Your task to perform on an android device: uninstall "Viber Messenger" Image 0: 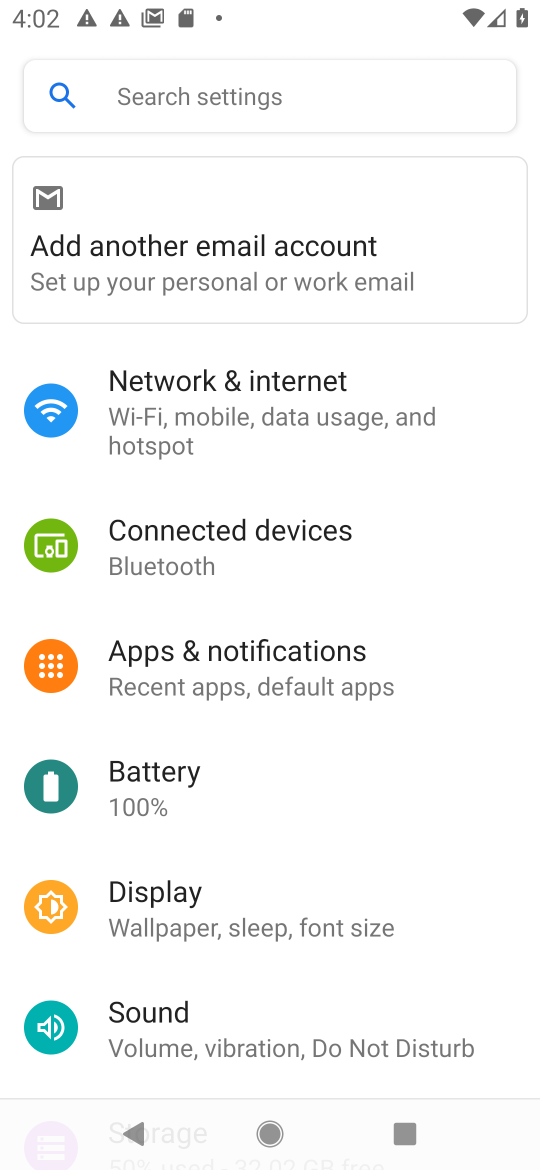
Step 0: press home button
Your task to perform on an android device: uninstall "Viber Messenger" Image 1: 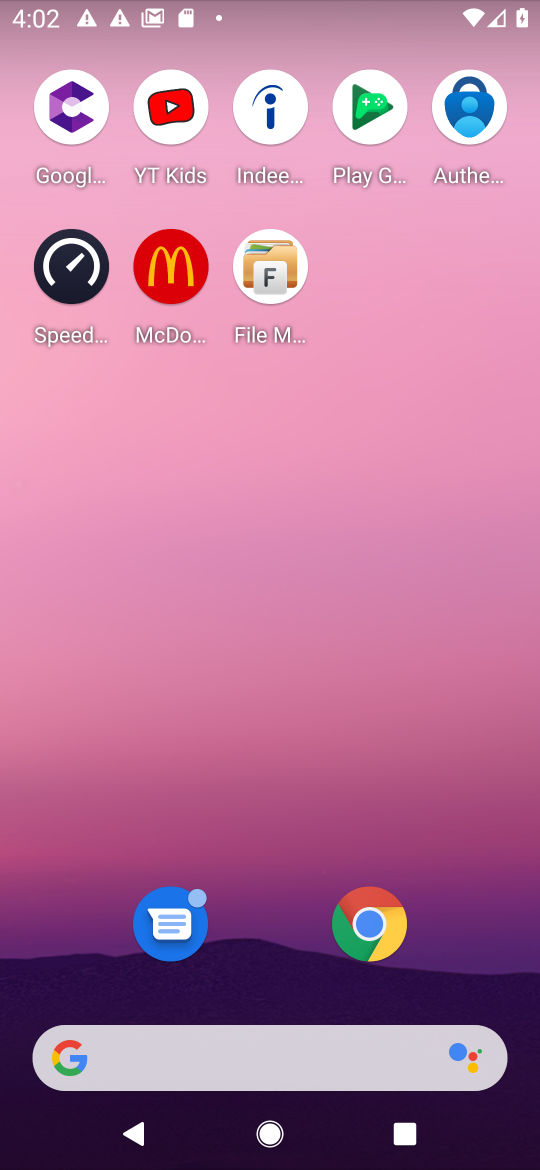
Step 1: drag from (307, 1150) to (251, 117)
Your task to perform on an android device: uninstall "Viber Messenger" Image 2: 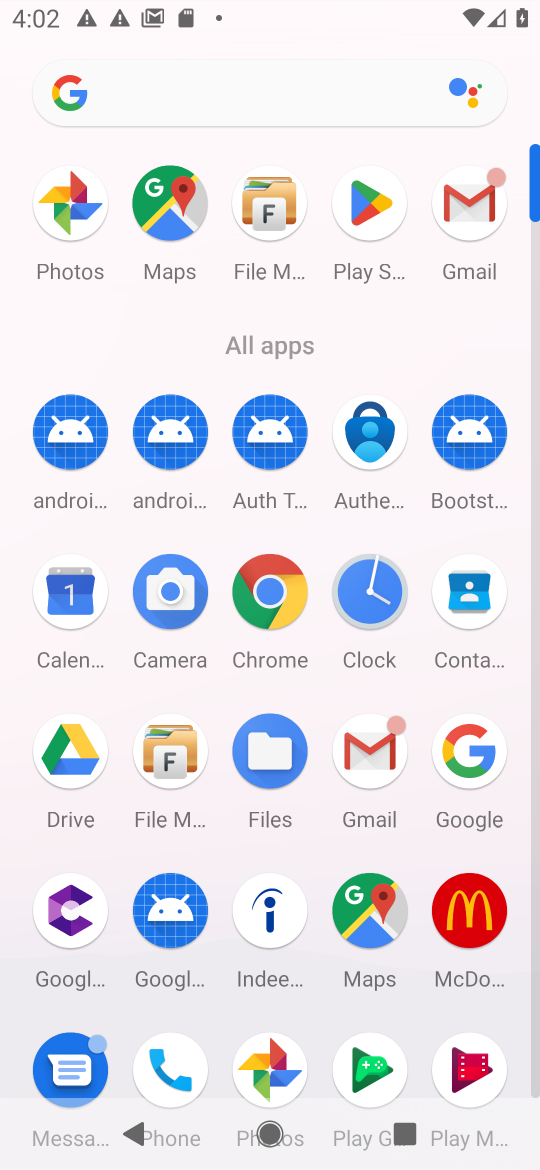
Step 2: click (371, 197)
Your task to perform on an android device: uninstall "Viber Messenger" Image 3: 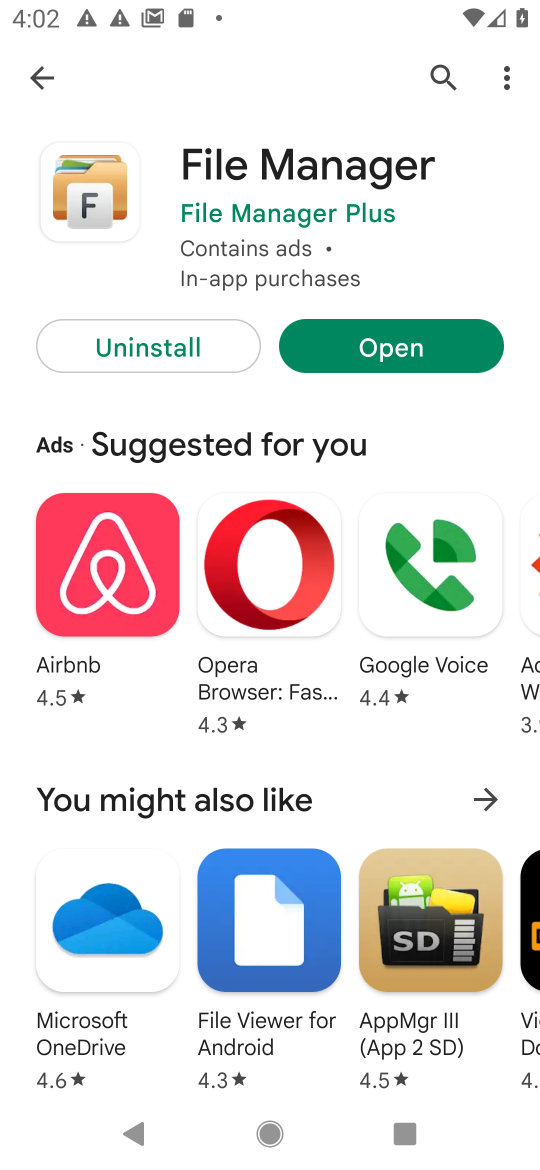
Step 3: click (441, 67)
Your task to perform on an android device: uninstall "Viber Messenger" Image 4: 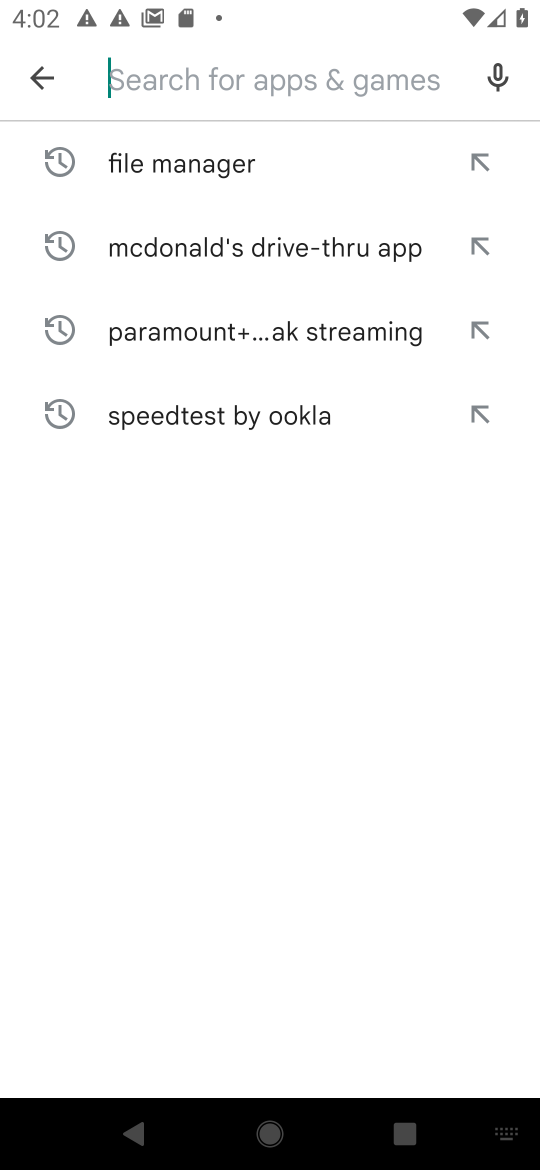
Step 4: type "Viber Messenger"
Your task to perform on an android device: uninstall "Viber Messenger" Image 5: 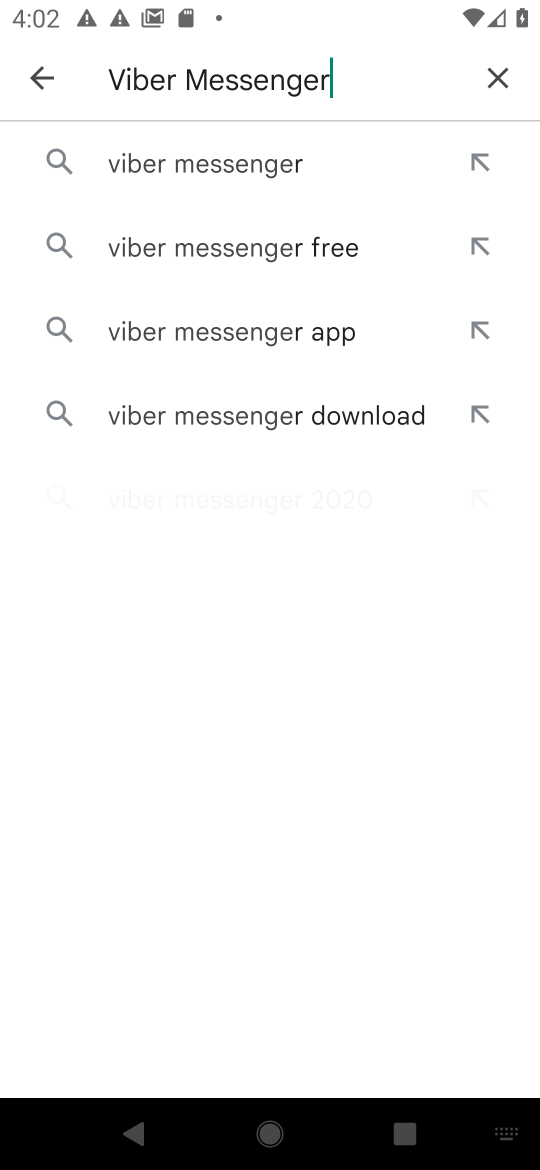
Step 5: type ""
Your task to perform on an android device: uninstall "Viber Messenger" Image 6: 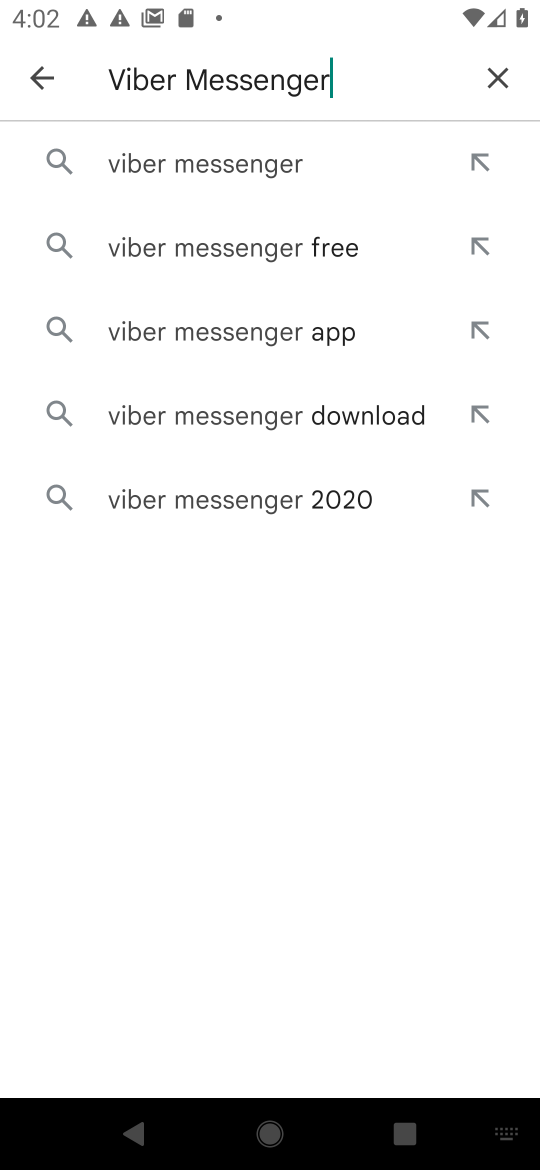
Step 6: click (251, 165)
Your task to perform on an android device: uninstall "Viber Messenger" Image 7: 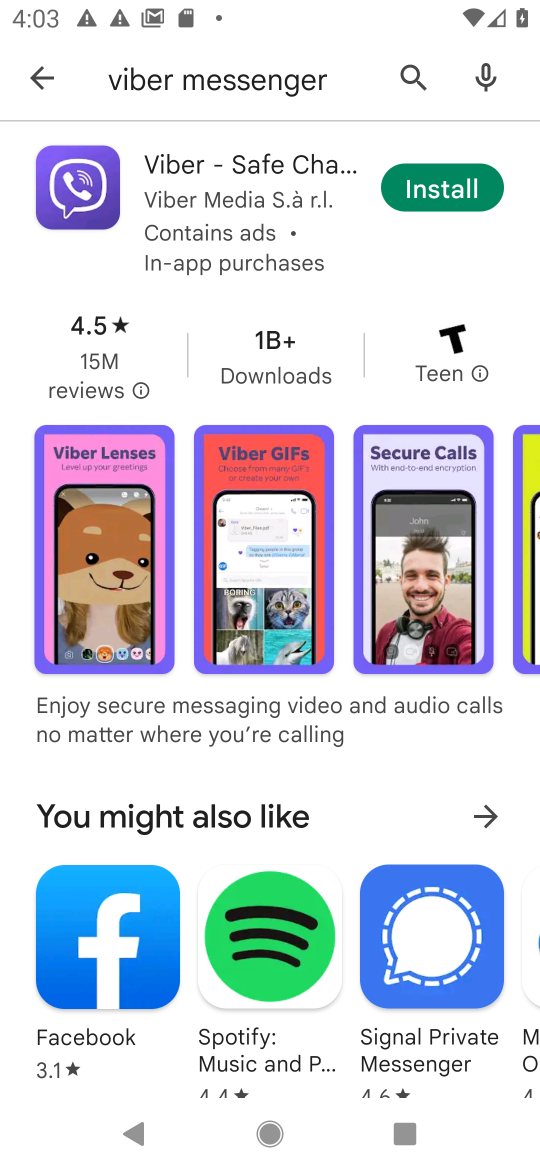
Step 7: task complete